Your task to perform on an android device: What's on my calendar tomorrow? Image 0: 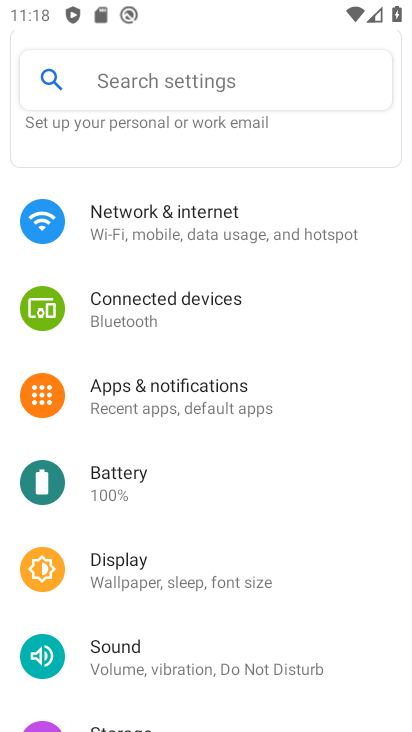
Step 0: press home button
Your task to perform on an android device: What's on my calendar tomorrow? Image 1: 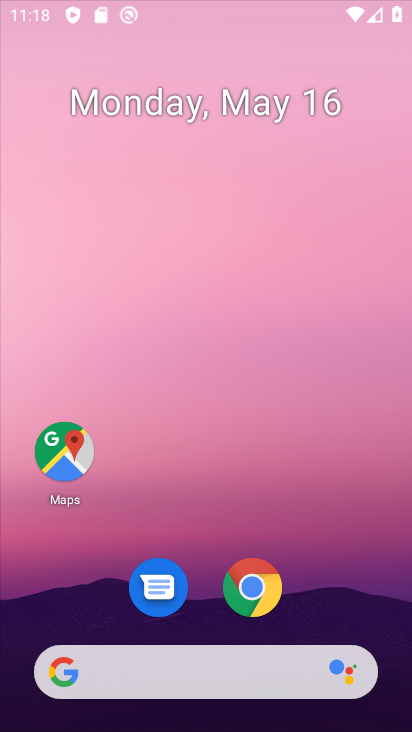
Step 1: drag from (395, 676) to (276, 22)
Your task to perform on an android device: What's on my calendar tomorrow? Image 2: 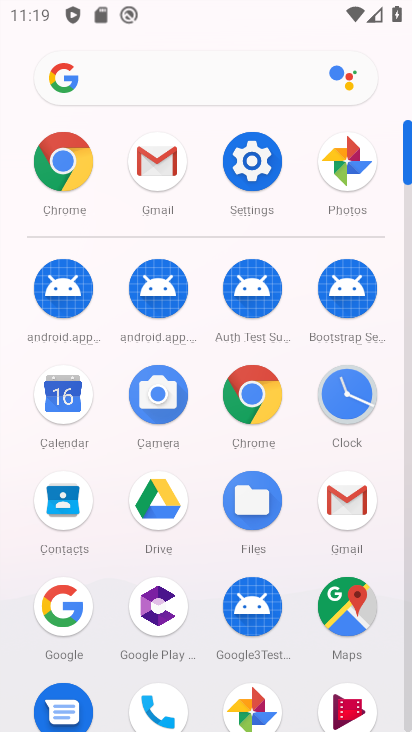
Step 2: click (70, 405)
Your task to perform on an android device: What's on my calendar tomorrow? Image 3: 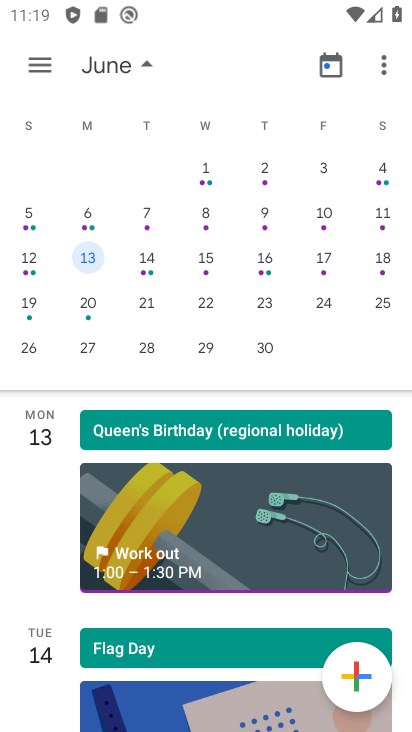
Step 3: drag from (61, 207) to (346, 226)
Your task to perform on an android device: What's on my calendar tomorrow? Image 4: 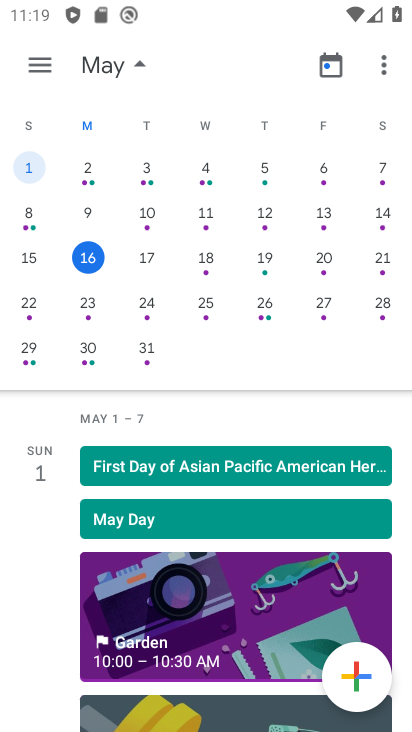
Step 4: drag from (177, 284) to (408, 275)
Your task to perform on an android device: What's on my calendar tomorrow? Image 5: 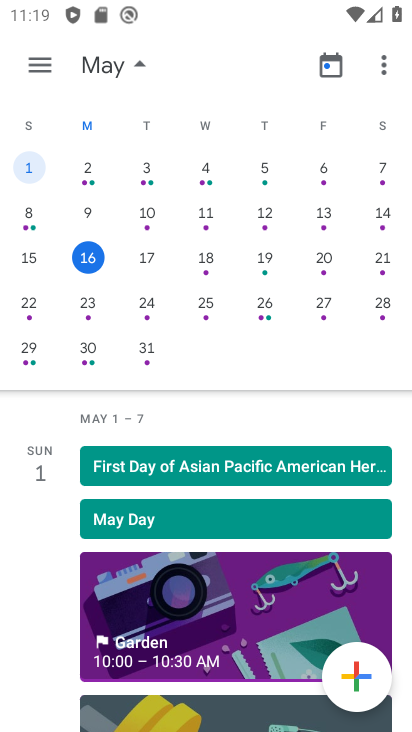
Step 5: click (215, 251)
Your task to perform on an android device: What's on my calendar tomorrow? Image 6: 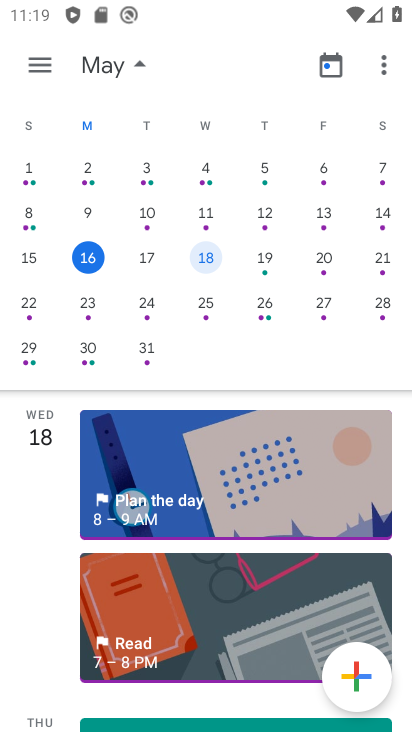
Step 6: click (200, 260)
Your task to perform on an android device: What's on my calendar tomorrow? Image 7: 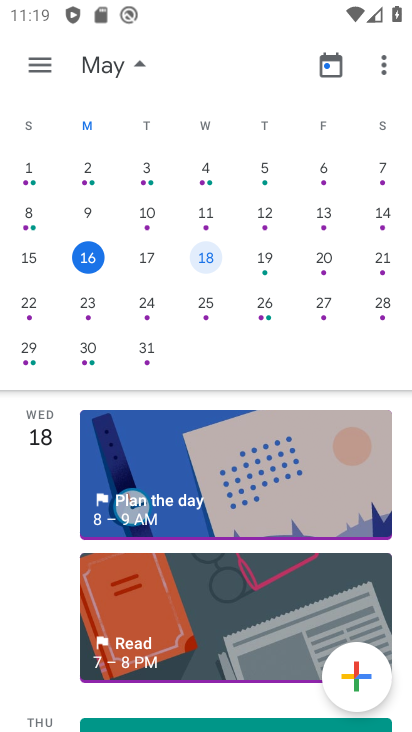
Step 7: task complete